Your task to perform on an android device: toggle airplane mode Image 0: 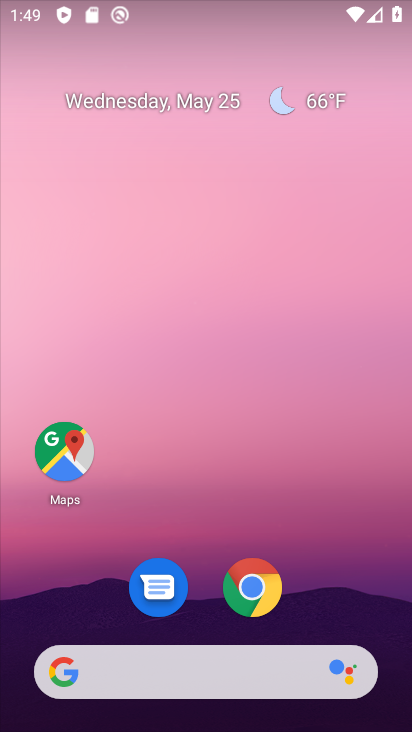
Step 0: drag from (390, 623) to (389, 185)
Your task to perform on an android device: toggle airplane mode Image 1: 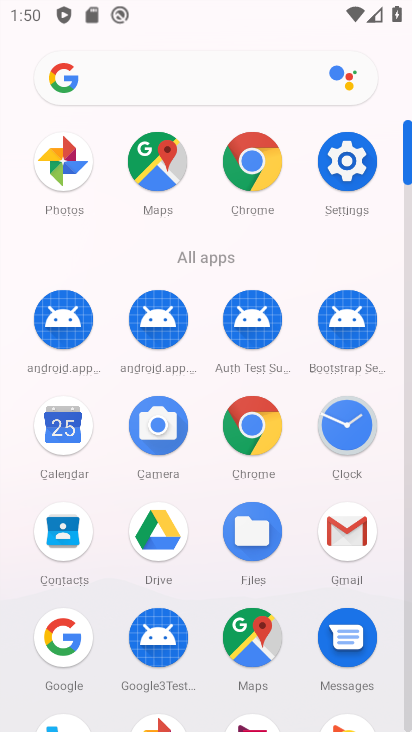
Step 1: click (342, 183)
Your task to perform on an android device: toggle airplane mode Image 2: 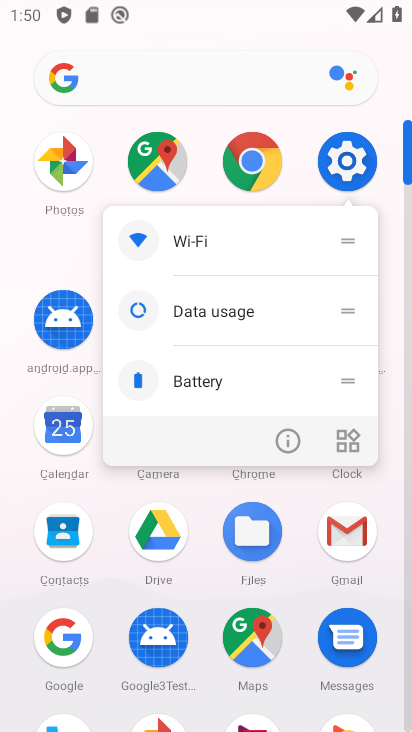
Step 2: click (342, 183)
Your task to perform on an android device: toggle airplane mode Image 3: 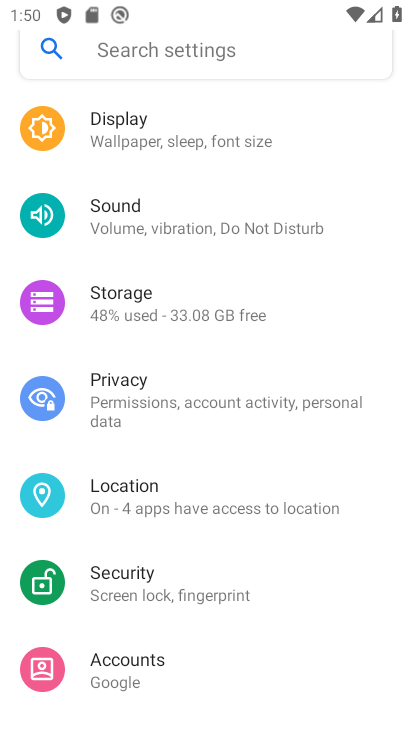
Step 3: drag from (346, 251) to (347, 361)
Your task to perform on an android device: toggle airplane mode Image 4: 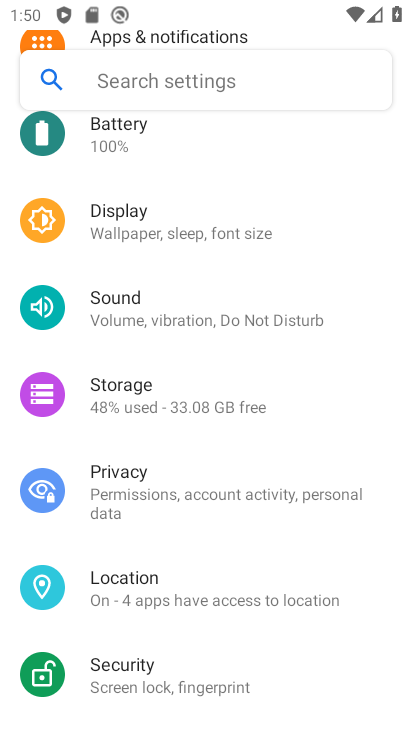
Step 4: drag from (364, 218) to (357, 334)
Your task to perform on an android device: toggle airplane mode Image 5: 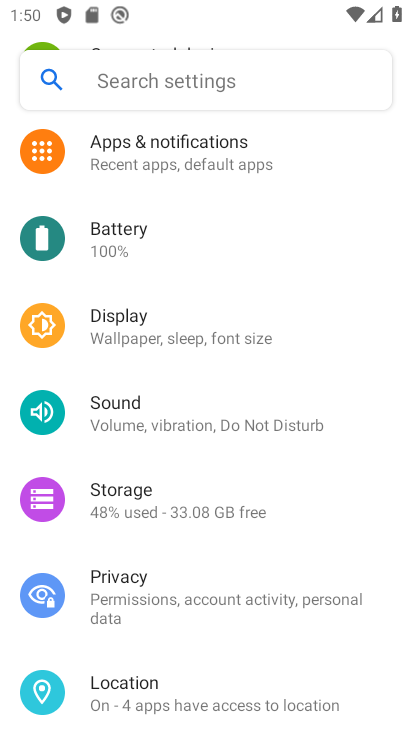
Step 5: drag from (365, 221) to (360, 322)
Your task to perform on an android device: toggle airplane mode Image 6: 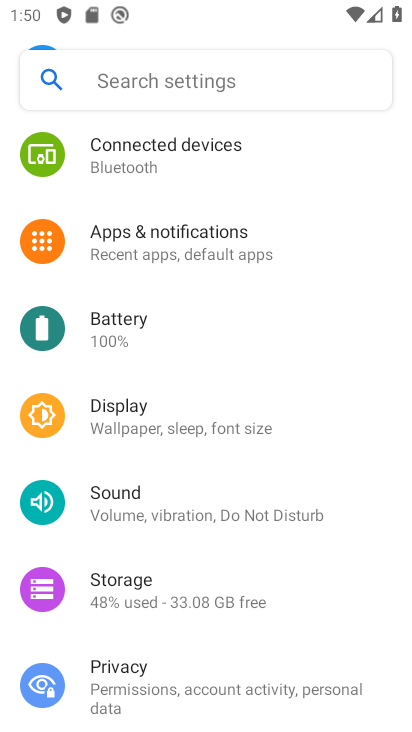
Step 6: drag from (353, 182) to (353, 298)
Your task to perform on an android device: toggle airplane mode Image 7: 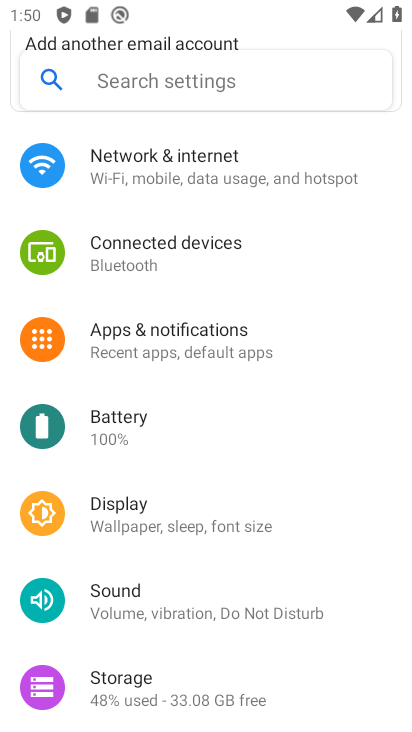
Step 7: drag from (369, 177) to (364, 310)
Your task to perform on an android device: toggle airplane mode Image 8: 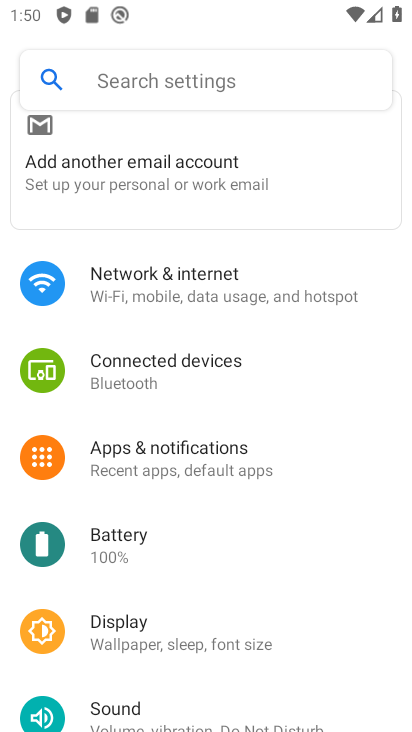
Step 8: drag from (352, 410) to (367, 311)
Your task to perform on an android device: toggle airplane mode Image 9: 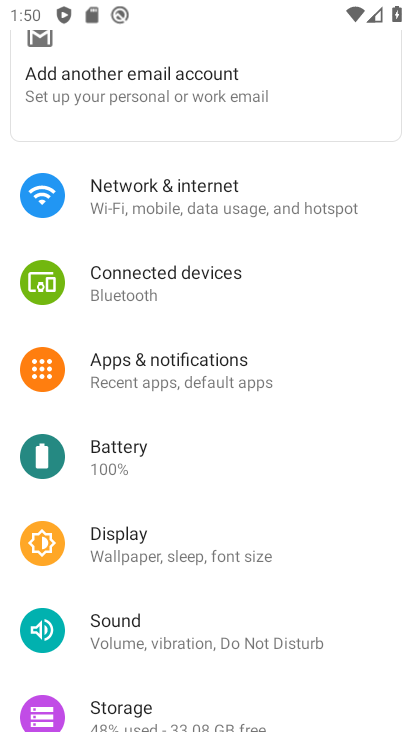
Step 9: drag from (351, 414) to (357, 333)
Your task to perform on an android device: toggle airplane mode Image 10: 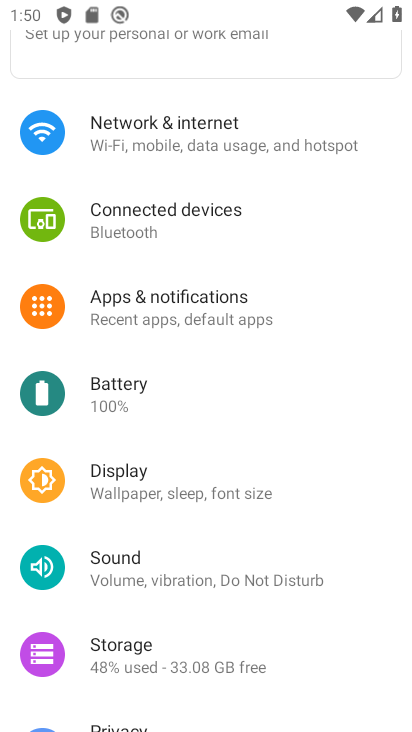
Step 10: drag from (347, 439) to (360, 337)
Your task to perform on an android device: toggle airplane mode Image 11: 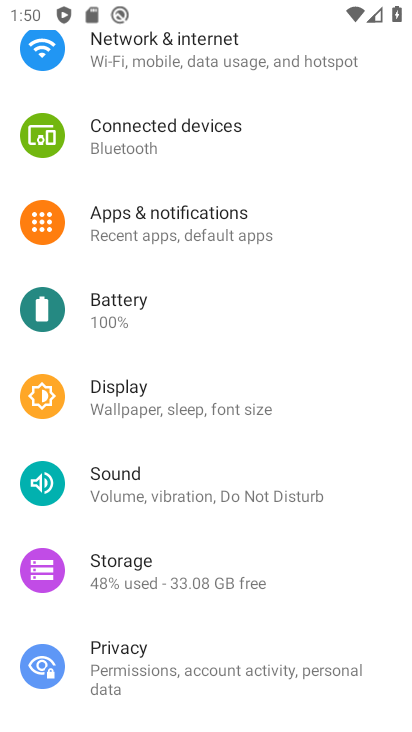
Step 11: drag from (342, 452) to (351, 356)
Your task to perform on an android device: toggle airplane mode Image 12: 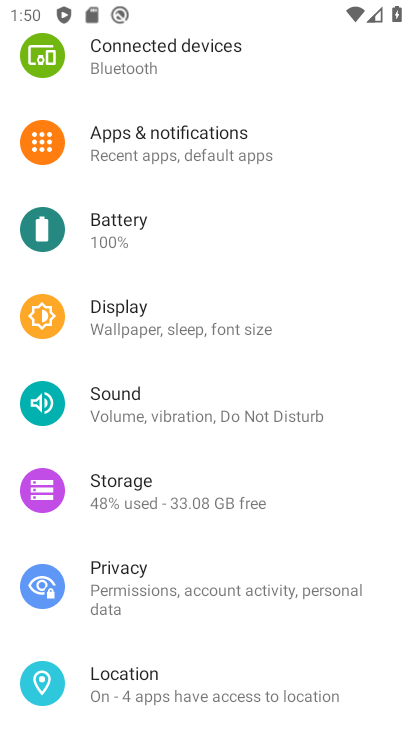
Step 12: drag from (344, 460) to (354, 373)
Your task to perform on an android device: toggle airplane mode Image 13: 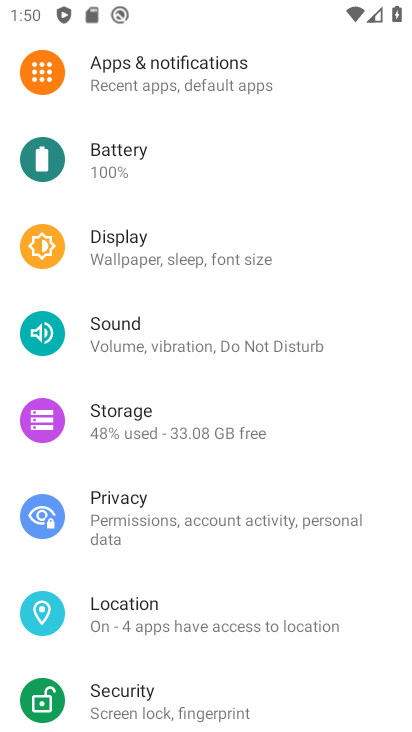
Step 13: drag from (343, 480) to (345, 367)
Your task to perform on an android device: toggle airplane mode Image 14: 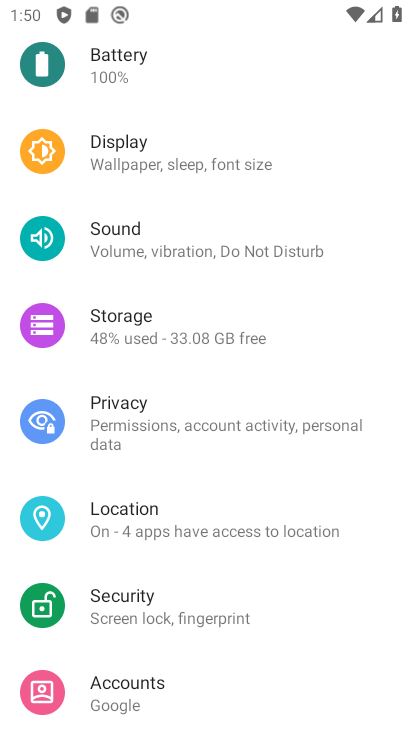
Step 14: drag from (353, 490) to (366, 382)
Your task to perform on an android device: toggle airplane mode Image 15: 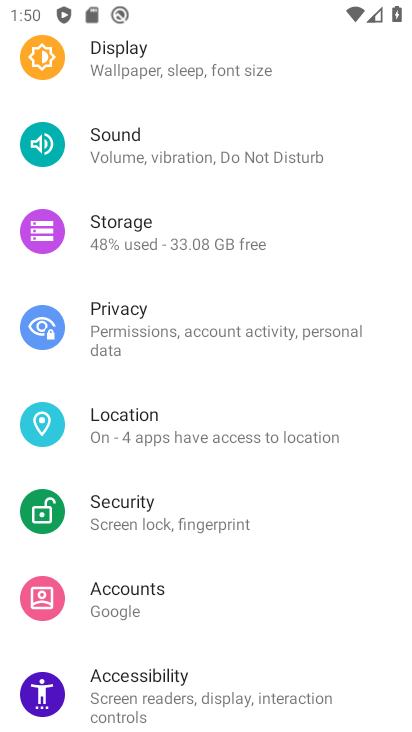
Step 15: drag from (357, 498) to (363, 413)
Your task to perform on an android device: toggle airplane mode Image 16: 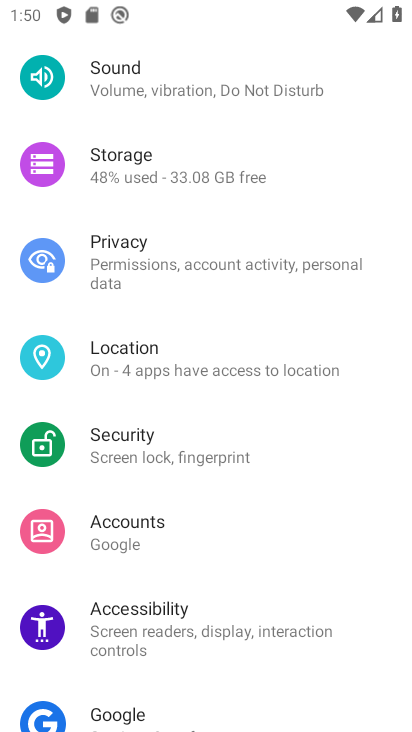
Step 16: drag from (355, 514) to (361, 390)
Your task to perform on an android device: toggle airplane mode Image 17: 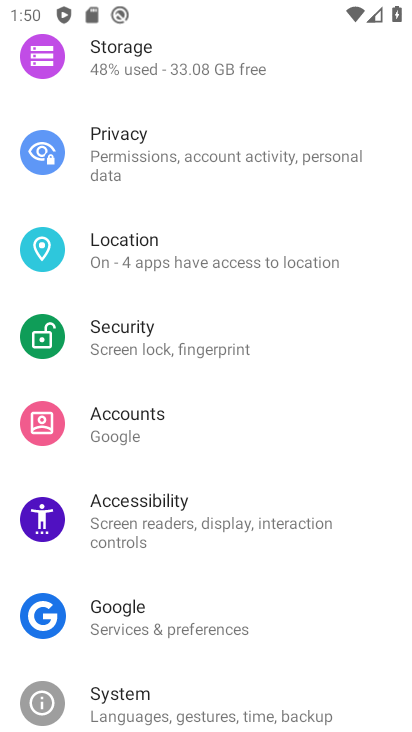
Step 17: drag from (359, 547) to (362, 390)
Your task to perform on an android device: toggle airplane mode Image 18: 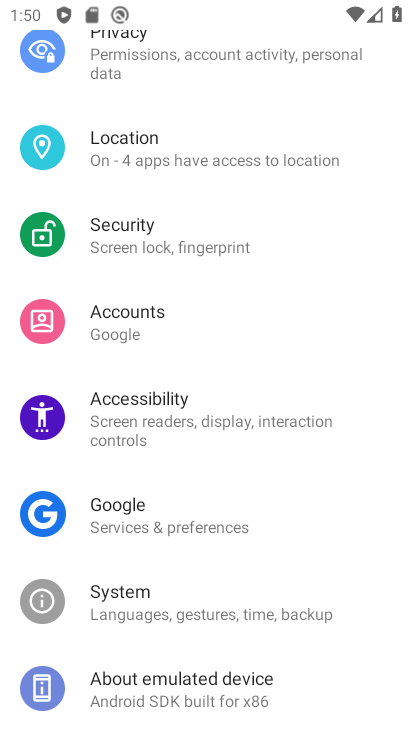
Step 18: drag from (349, 269) to (348, 371)
Your task to perform on an android device: toggle airplane mode Image 19: 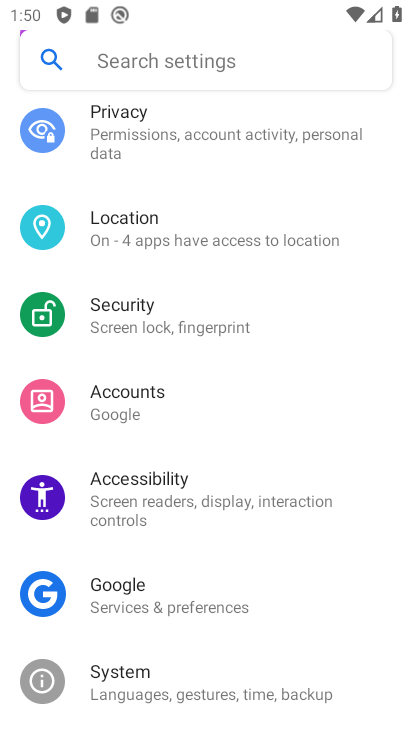
Step 19: drag from (349, 253) to (351, 364)
Your task to perform on an android device: toggle airplane mode Image 20: 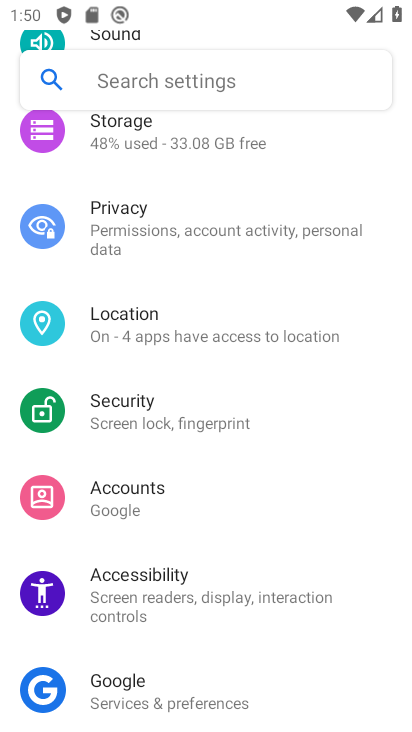
Step 20: drag from (367, 262) to (370, 332)
Your task to perform on an android device: toggle airplane mode Image 21: 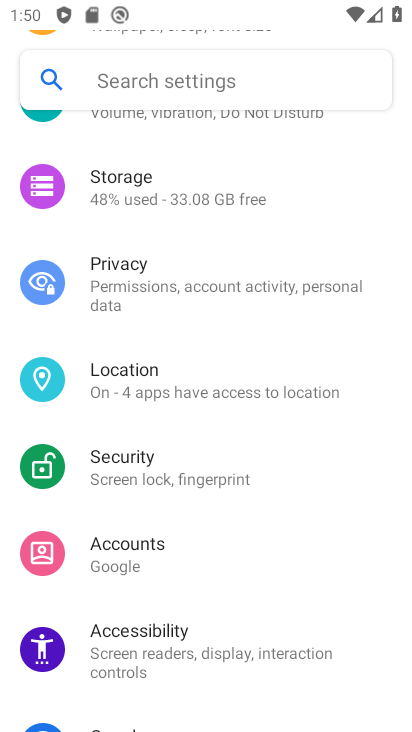
Step 21: drag from (374, 237) to (374, 344)
Your task to perform on an android device: toggle airplane mode Image 22: 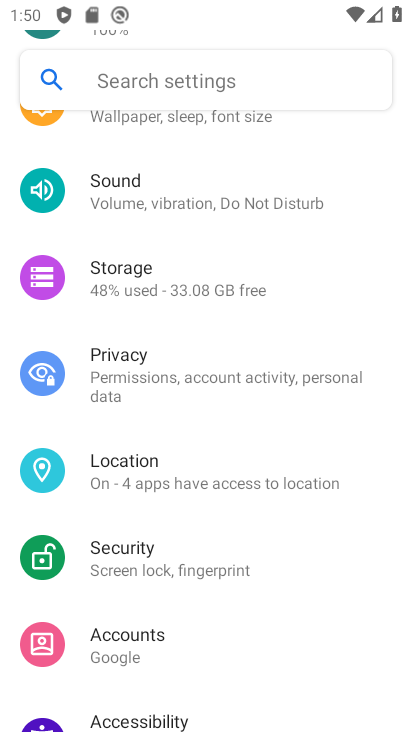
Step 22: drag from (374, 228) to (375, 325)
Your task to perform on an android device: toggle airplane mode Image 23: 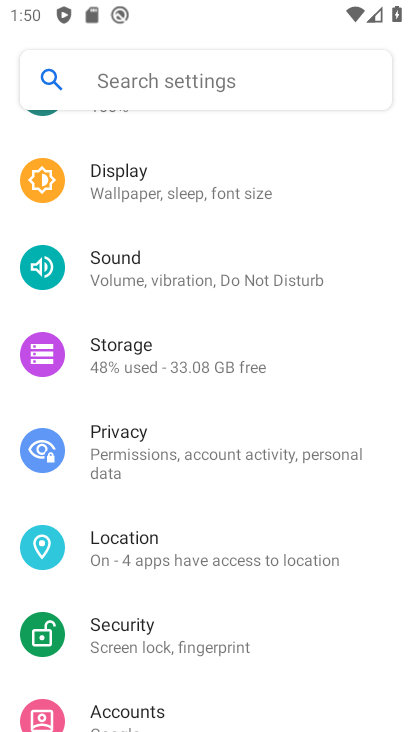
Step 23: drag from (357, 233) to (356, 349)
Your task to perform on an android device: toggle airplane mode Image 24: 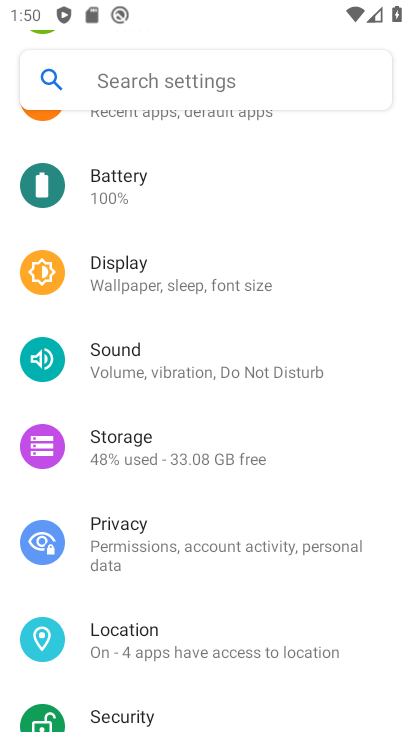
Step 24: drag from (344, 236) to (343, 353)
Your task to perform on an android device: toggle airplane mode Image 25: 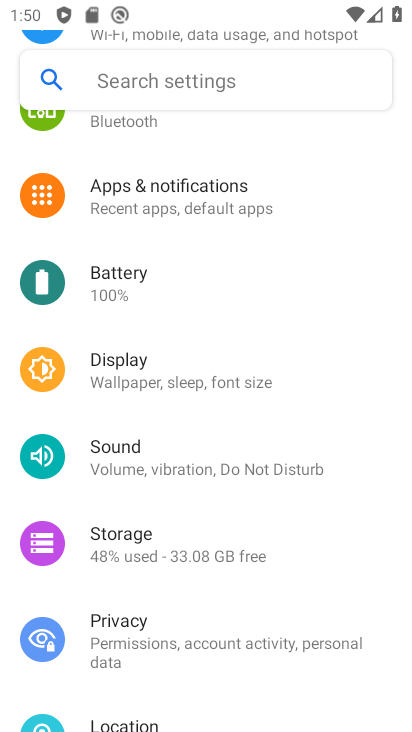
Step 25: drag from (342, 232) to (341, 361)
Your task to perform on an android device: toggle airplane mode Image 26: 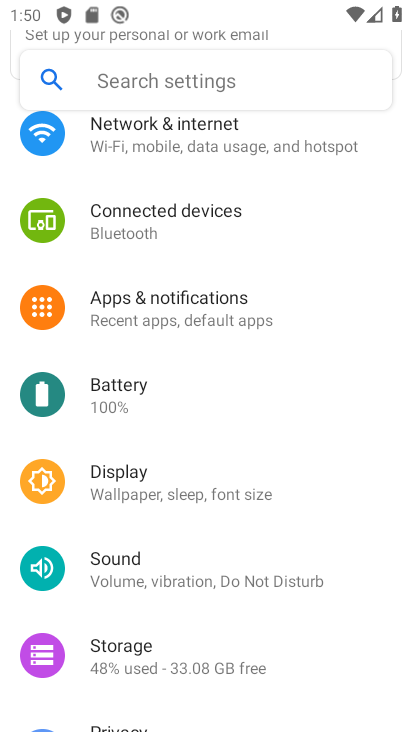
Step 26: drag from (345, 253) to (344, 350)
Your task to perform on an android device: toggle airplane mode Image 27: 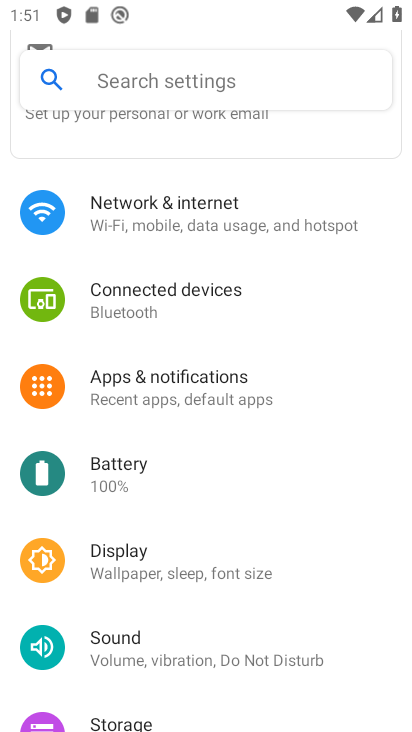
Step 27: click (293, 233)
Your task to perform on an android device: toggle airplane mode Image 28: 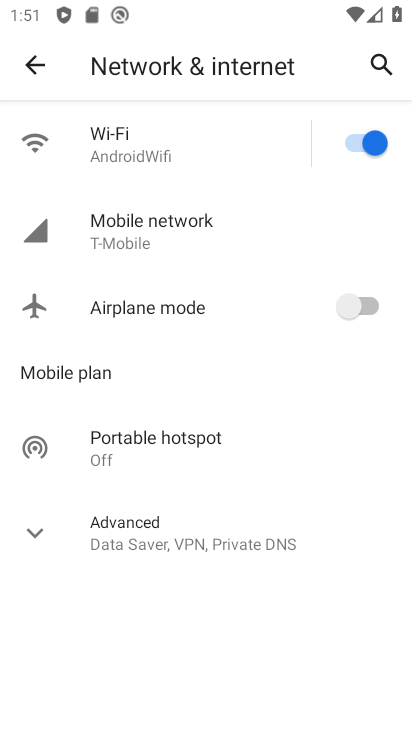
Step 28: click (350, 323)
Your task to perform on an android device: toggle airplane mode Image 29: 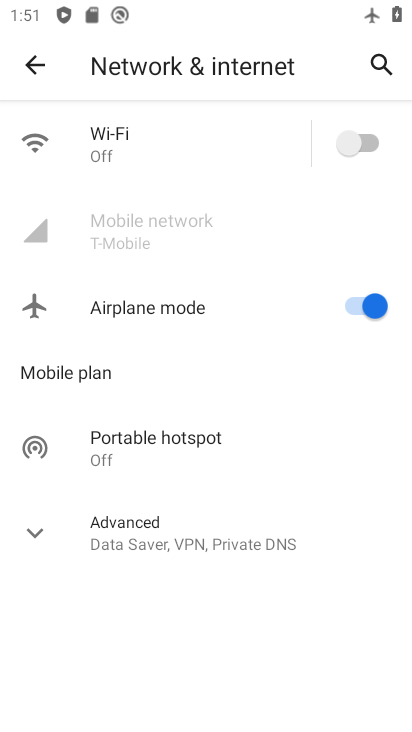
Step 29: task complete